Your task to perform on an android device: stop showing notifications on the lock screen Image 0: 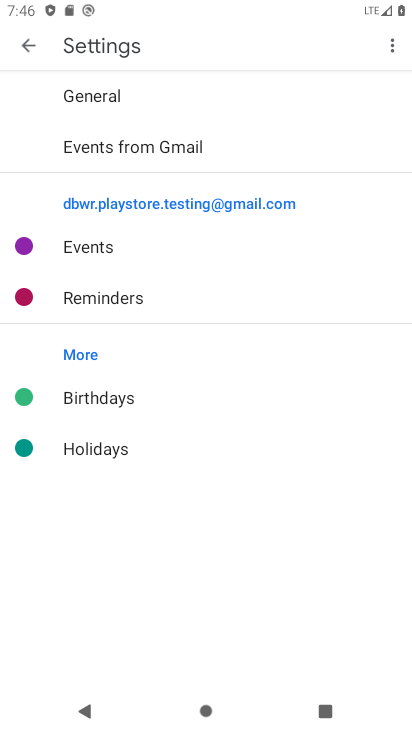
Step 0: press home button
Your task to perform on an android device: stop showing notifications on the lock screen Image 1: 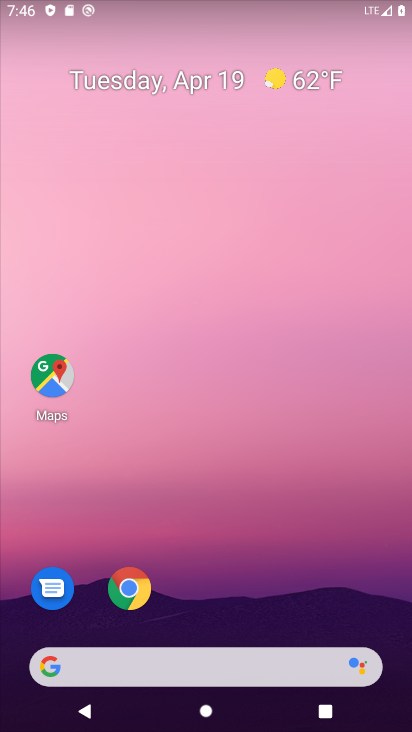
Step 1: drag from (207, 566) to (136, 60)
Your task to perform on an android device: stop showing notifications on the lock screen Image 2: 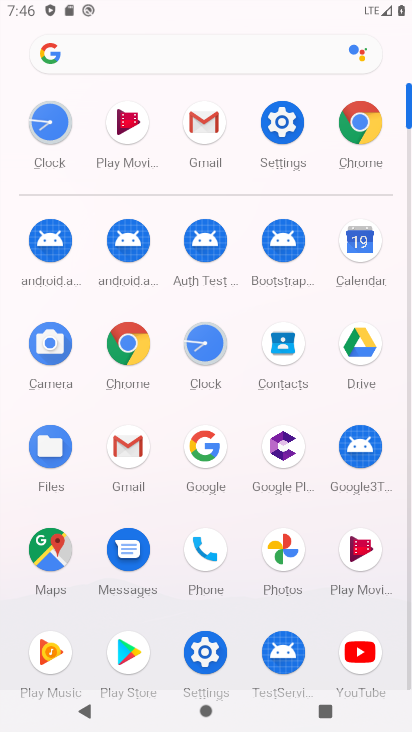
Step 2: click (285, 126)
Your task to perform on an android device: stop showing notifications on the lock screen Image 3: 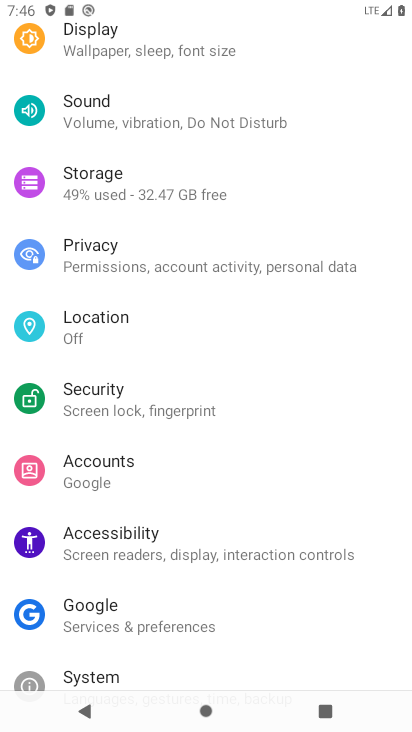
Step 3: drag from (215, 163) to (184, 727)
Your task to perform on an android device: stop showing notifications on the lock screen Image 4: 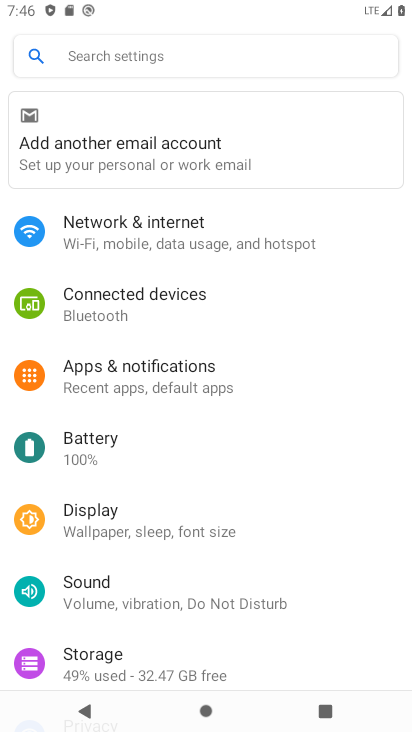
Step 4: click (135, 363)
Your task to perform on an android device: stop showing notifications on the lock screen Image 5: 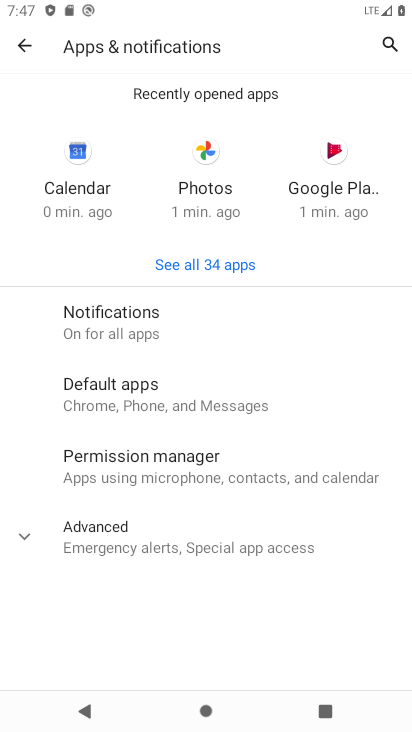
Step 5: click (109, 316)
Your task to perform on an android device: stop showing notifications on the lock screen Image 6: 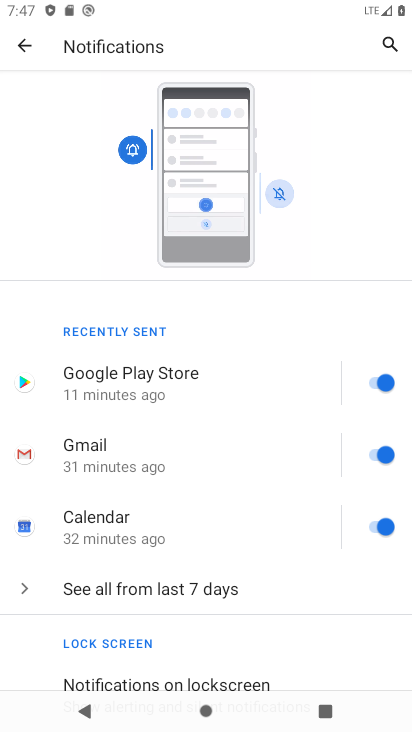
Step 6: drag from (207, 640) to (185, 187)
Your task to perform on an android device: stop showing notifications on the lock screen Image 7: 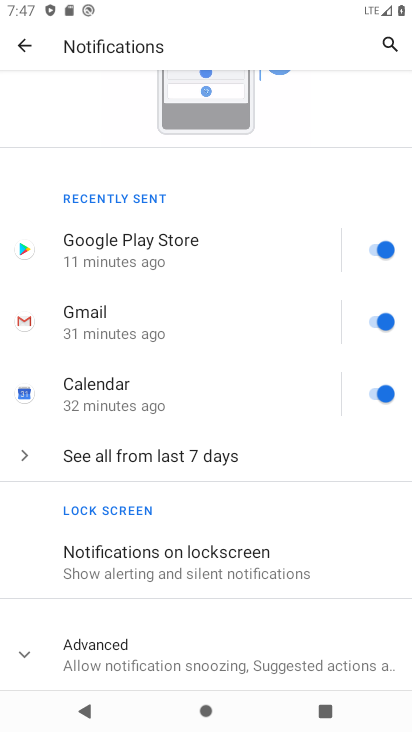
Step 7: click (209, 554)
Your task to perform on an android device: stop showing notifications on the lock screen Image 8: 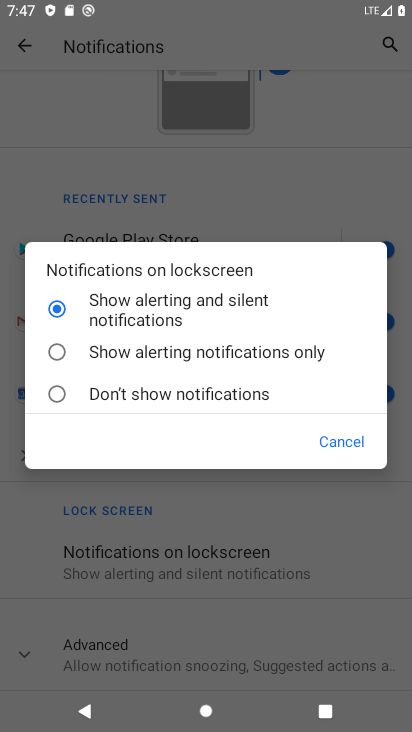
Step 8: click (55, 392)
Your task to perform on an android device: stop showing notifications on the lock screen Image 9: 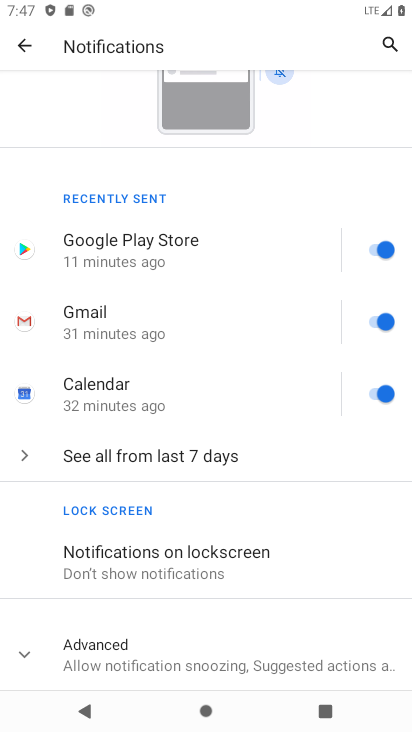
Step 9: task complete